Your task to perform on an android device: Is it going to rain today? Image 0: 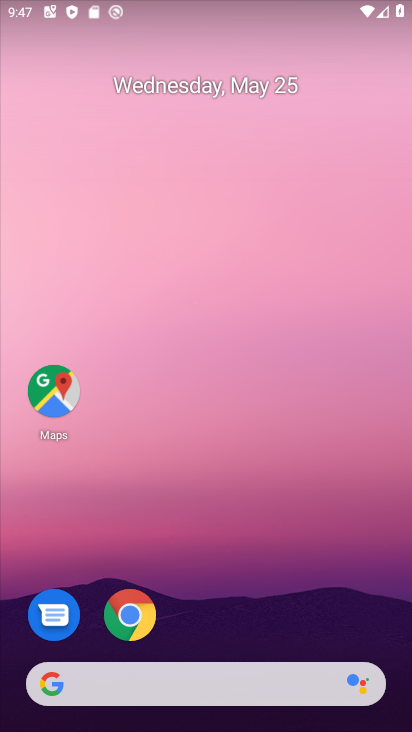
Step 0: click (253, 681)
Your task to perform on an android device: Is it going to rain today? Image 1: 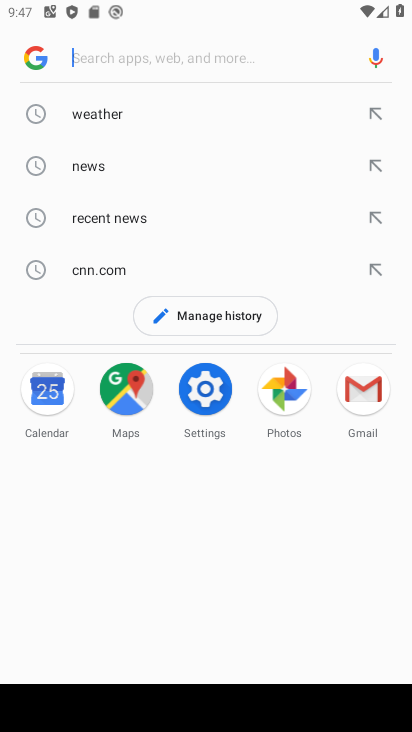
Step 1: click (101, 116)
Your task to perform on an android device: Is it going to rain today? Image 2: 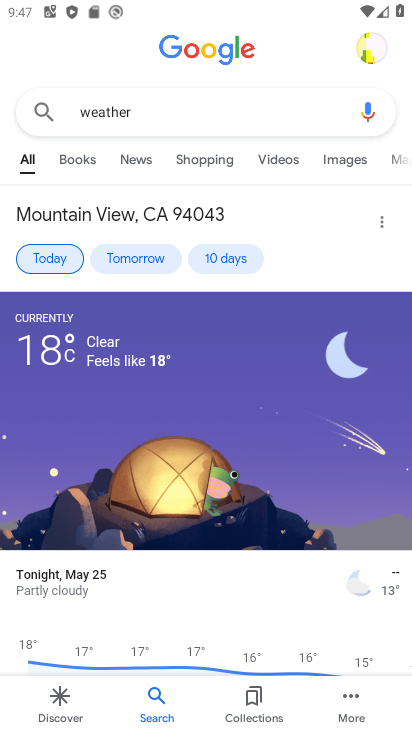
Step 2: click (61, 255)
Your task to perform on an android device: Is it going to rain today? Image 3: 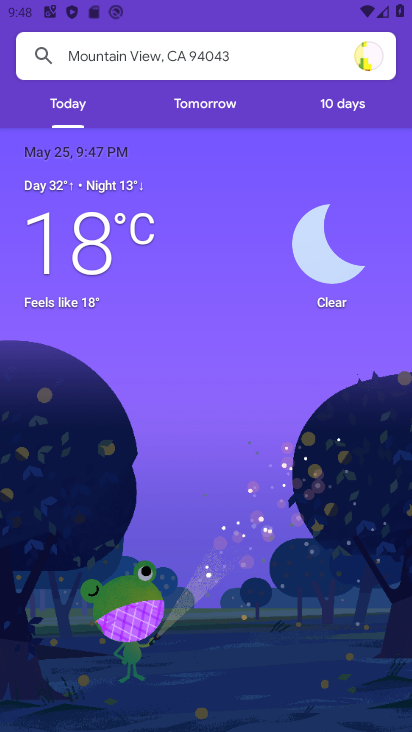
Step 3: task complete